Your task to perform on an android device: toggle translation in the chrome app Image 0: 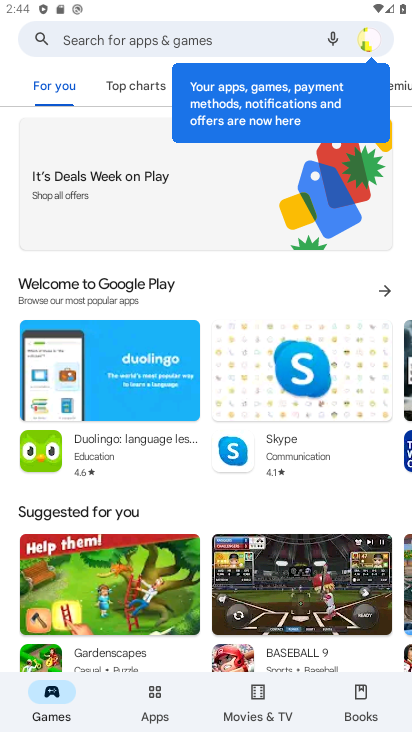
Step 0: press home button
Your task to perform on an android device: toggle translation in the chrome app Image 1: 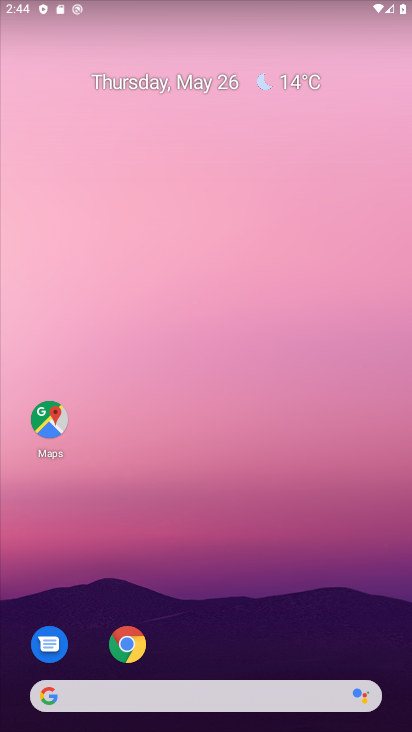
Step 1: drag from (320, 574) to (278, 138)
Your task to perform on an android device: toggle translation in the chrome app Image 2: 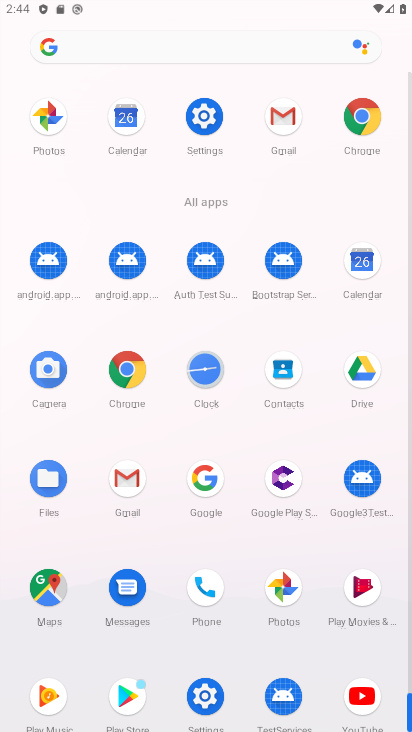
Step 2: click (138, 382)
Your task to perform on an android device: toggle translation in the chrome app Image 3: 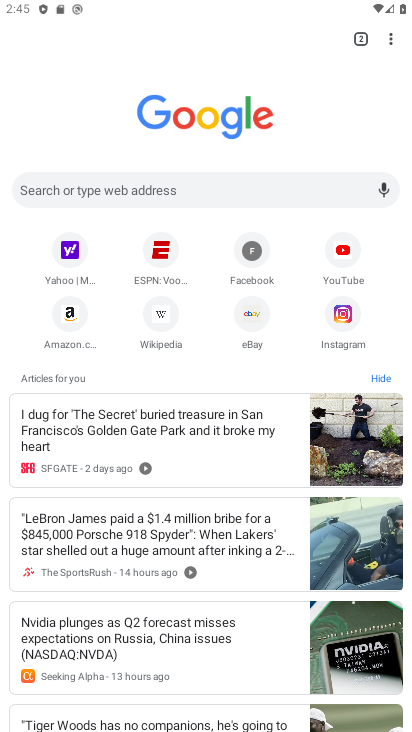
Step 3: click (398, 45)
Your task to perform on an android device: toggle translation in the chrome app Image 4: 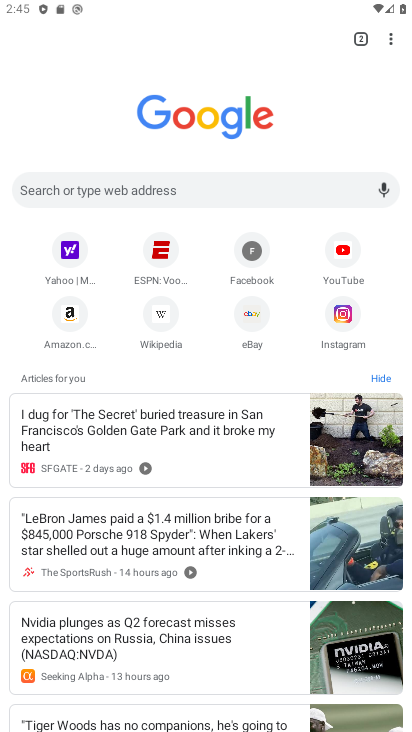
Step 4: drag from (398, 45) to (233, 341)
Your task to perform on an android device: toggle translation in the chrome app Image 5: 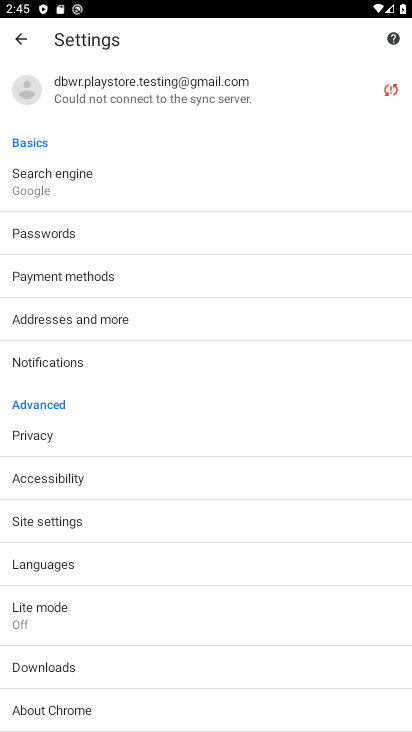
Step 5: click (70, 571)
Your task to perform on an android device: toggle translation in the chrome app Image 6: 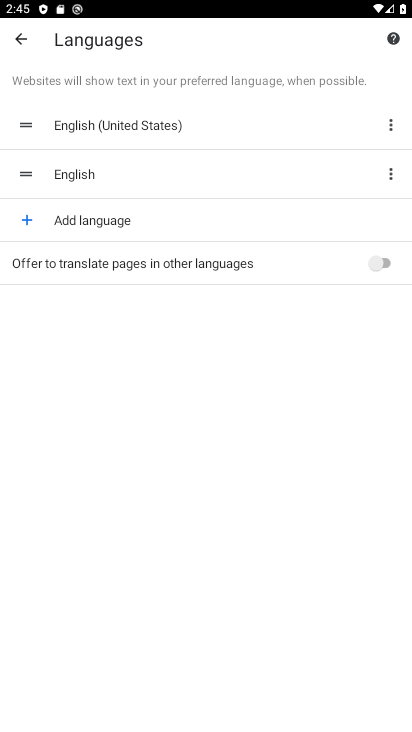
Step 6: click (390, 262)
Your task to perform on an android device: toggle translation in the chrome app Image 7: 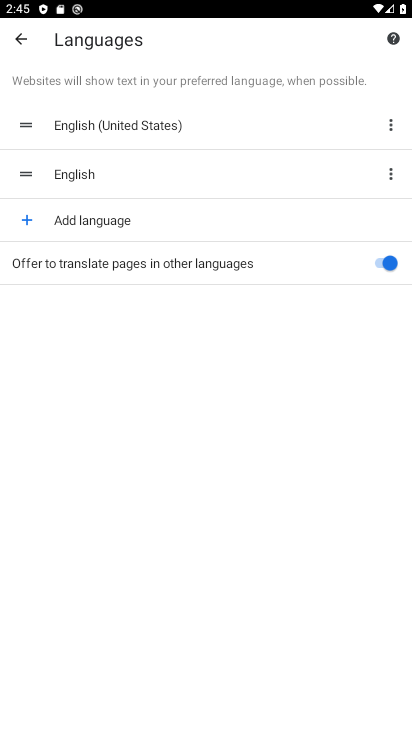
Step 7: task complete